Your task to perform on an android device: turn notification dots off Image 0: 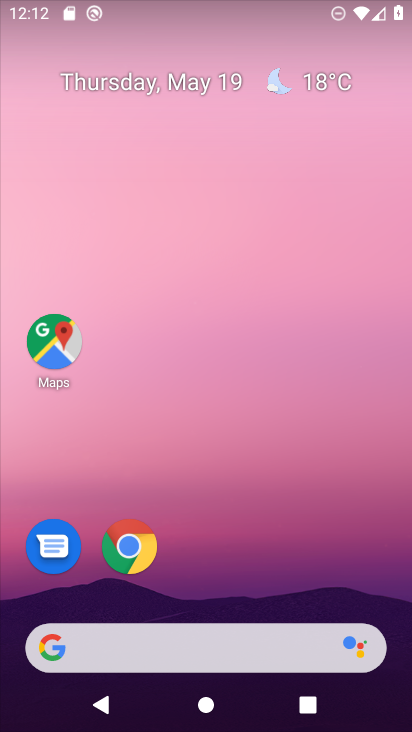
Step 0: drag from (232, 723) to (232, 245)
Your task to perform on an android device: turn notification dots off Image 1: 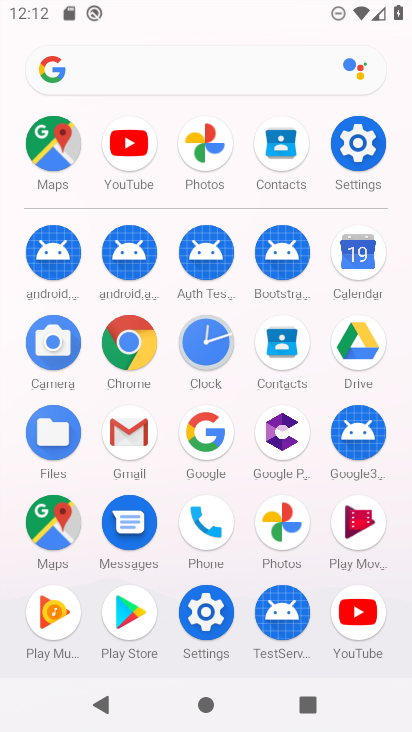
Step 1: click (363, 151)
Your task to perform on an android device: turn notification dots off Image 2: 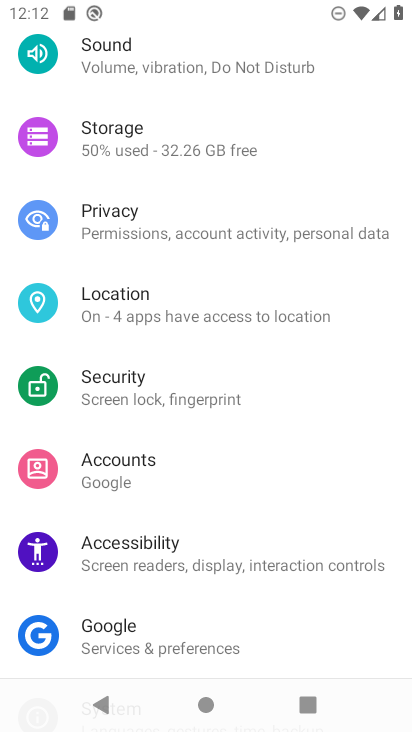
Step 2: drag from (208, 119) to (238, 604)
Your task to perform on an android device: turn notification dots off Image 3: 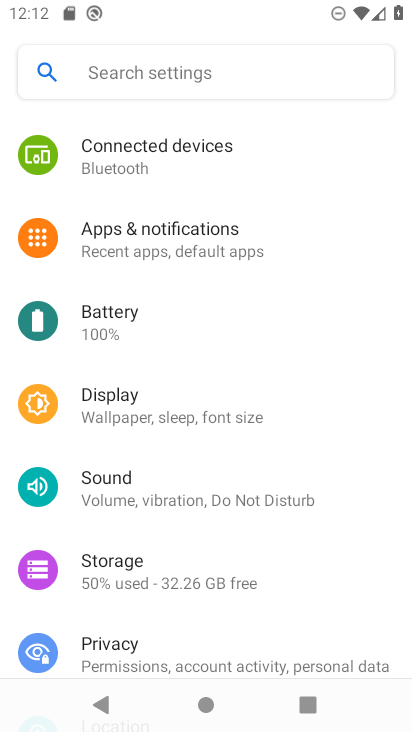
Step 3: click (185, 228)
Your task to perform on an android device: turn notification dots off Image 4: 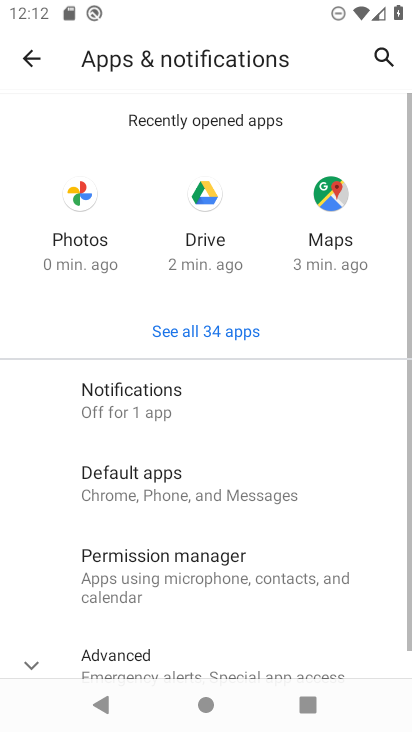
Step 4: click (134, 398)
Your task to perform on an android device: turn notification dots off Image 5: 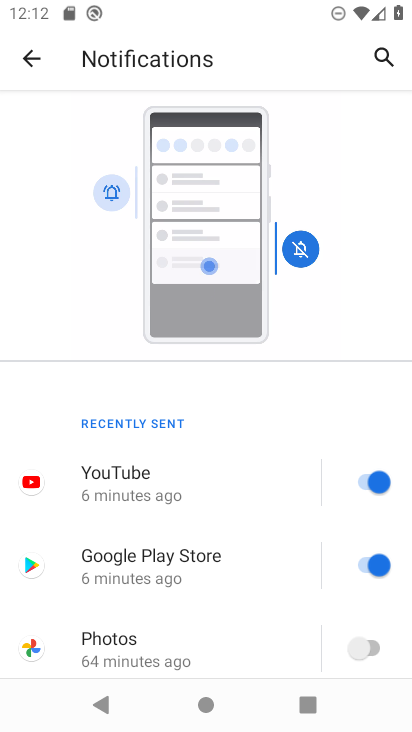
Step 5: drag from (257, 663) to (249, 294)
Your task to perform on an android device: turn notification dots off Image 6: 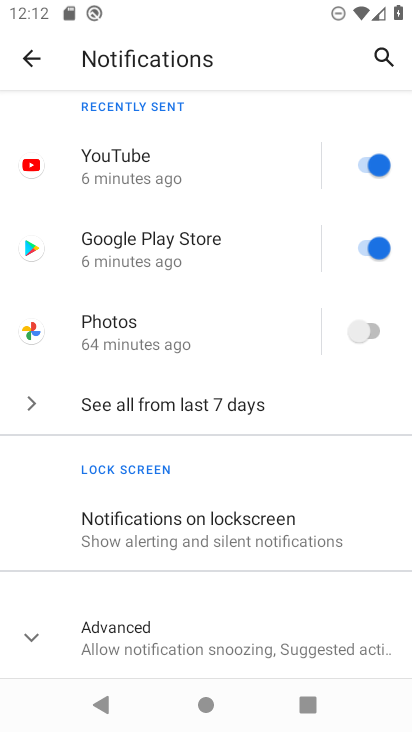
Step 6: click (182, 642)
Your task to perform on an android device: turn notification dots off Image 7: 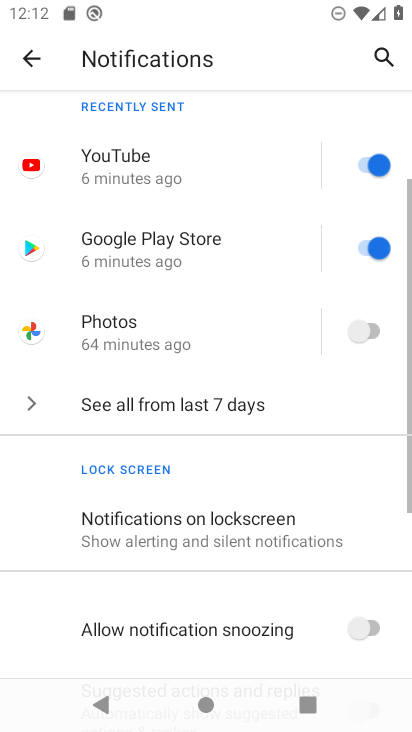
Step 7: drag from (225, 615) to (251, 289)
Your task to perform on an android device: turn notification dots off Image 8: 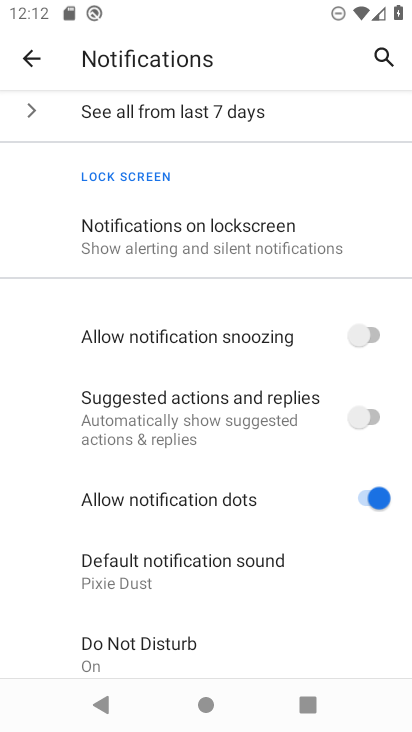
Step 8: click (365, 502)
Your task to perform on an android device: turn notification dots off Image 9: 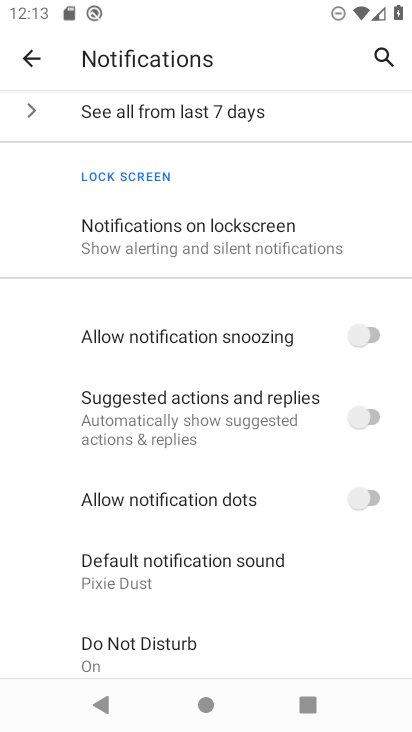
Step 9: task complete